Your task to perform on an android device: Go to Android settings Image 0: 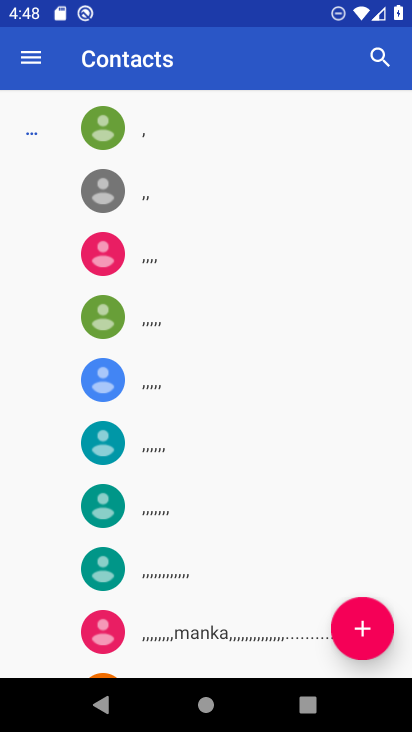
Step 0: press home button
Your task to perform on an android device: Go to Android settings Image 1: 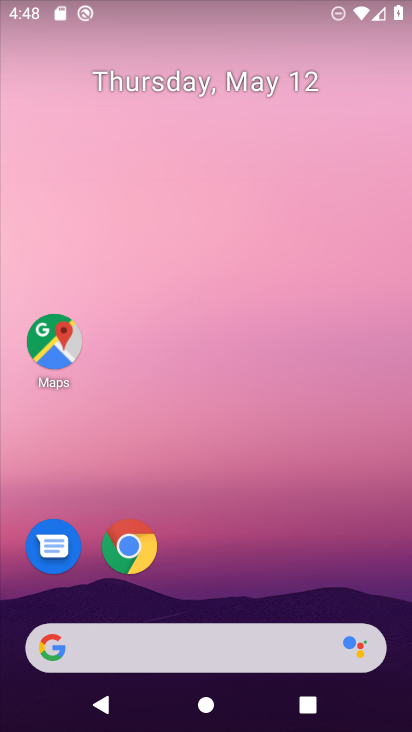
Step 1: drag from (243, 554) to (212, 289)
Your task to perform on an android device: Go to Android settings Image 2: 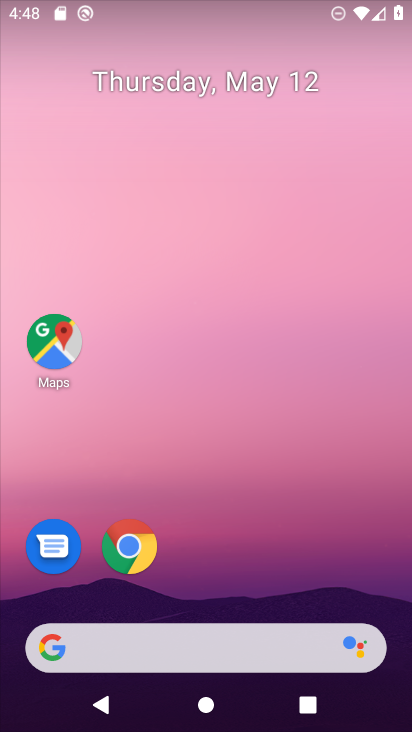
Step 2: drag from (262, 545) to (241, 262)
Your task to perform on an android device: Go to Android settings Image 3: 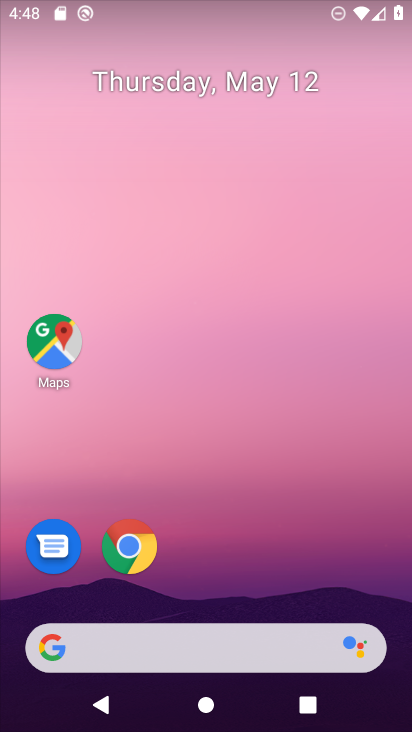
Step 3: drag from (263, 583) to (253, 232)
Your task to perform on an android device: Go to Android settings Image 4: 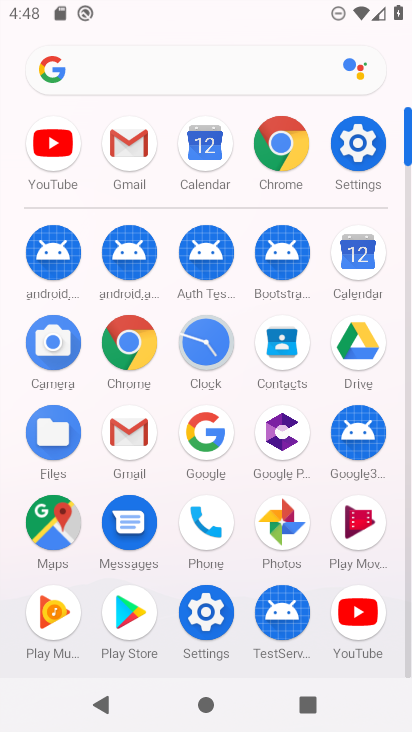
Step 4: click (353, 132)
Your task to perform on an android device: Go to Android settings Image 5: 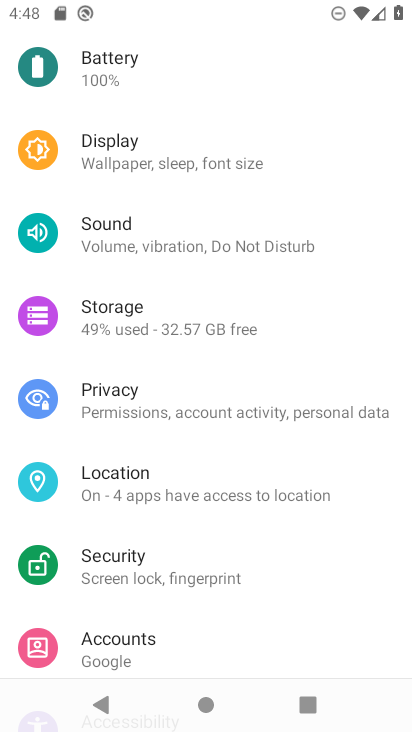
Step 5: task complete